Your task to perform on an android device: Open display settings Image 0: 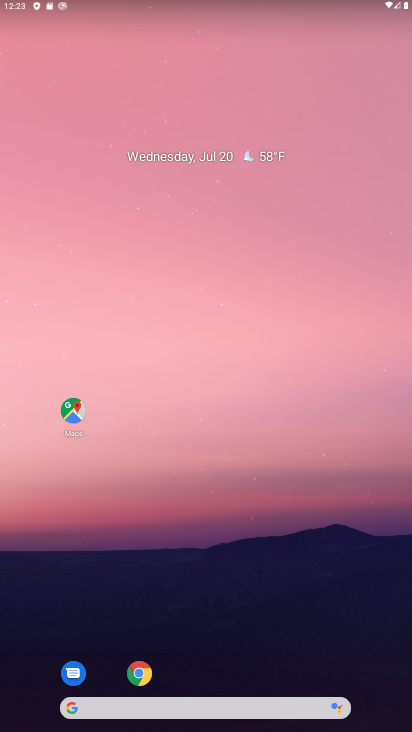
Step 0: drag from (230, 508) to (247, 189)
Your task to perform on an android device: Open display settings Image 1: 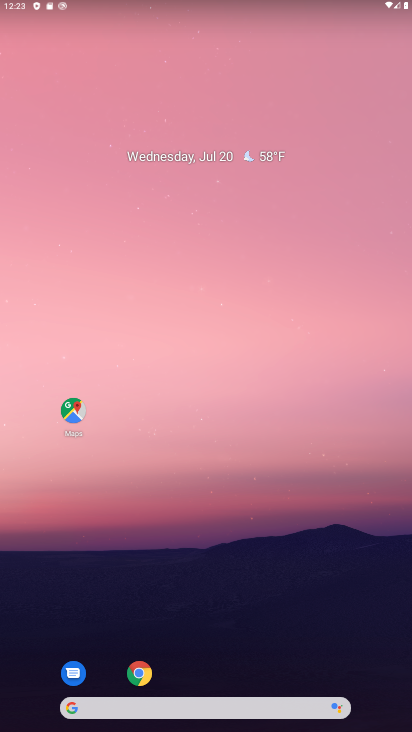
Step 1: drag from (224, 646) to (290, 3)
Your task to perform on an android device: Open display settings Image 2: 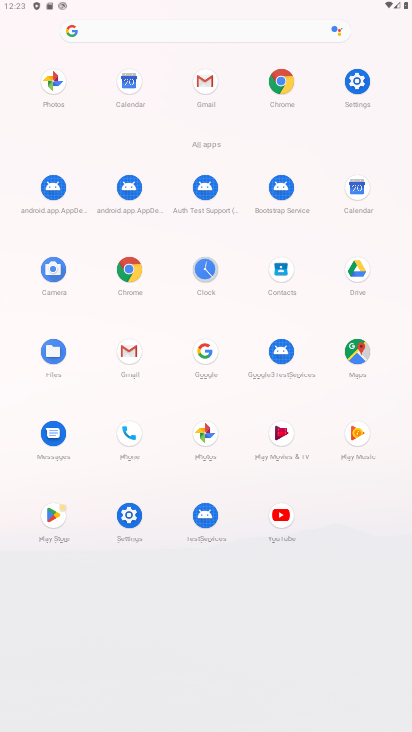
Step 2: click (126, 519)
Your task to perform on an android device: Open display settings Image 3: 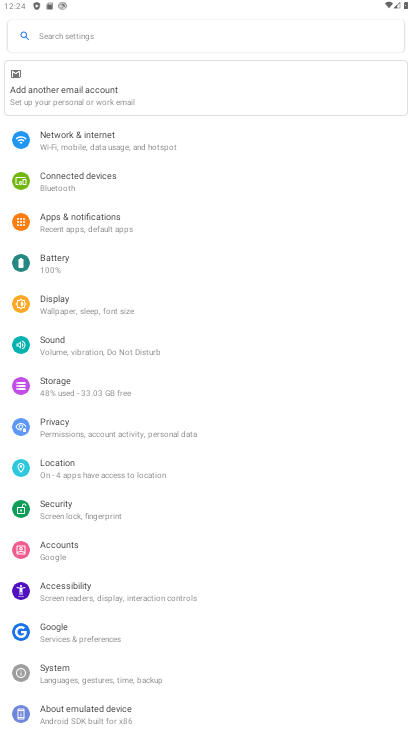
Step 3: click (107, 310)
Your task to perform on an android device: Open display settings Image 4: 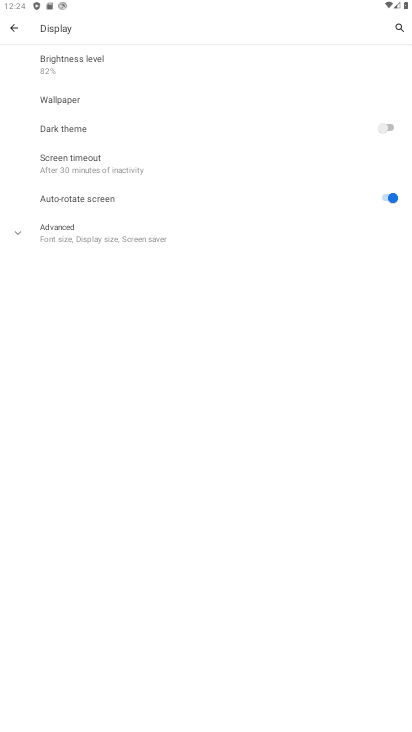
Step 4: task complete